Your task to perform on an android device: open sync settings in chrome Image 0: 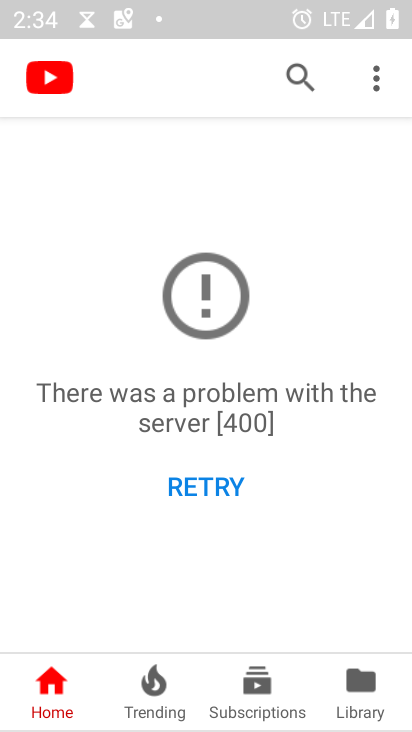
Step 0: press back button
Your task to perform on an android device: open sync settings in chrome Image 1: 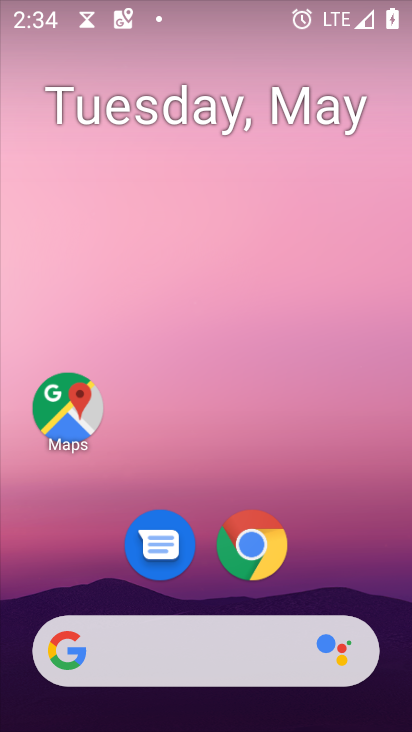
Step 1: drag from (341, 552) to (231, 10)
Your task to perform on an android device: open sync settings in chrome Image 2: 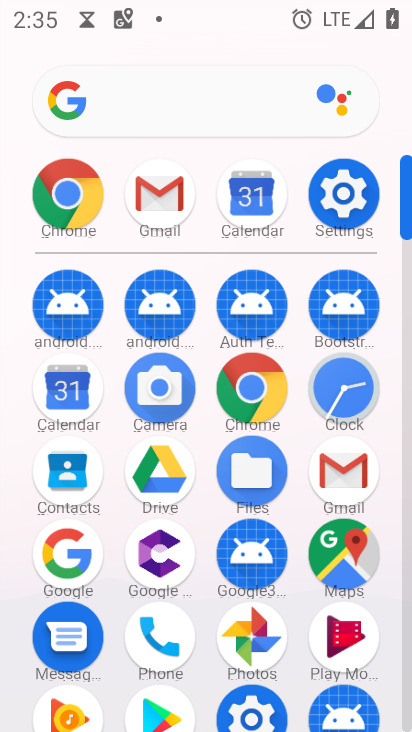
Step 2: drag from (12, 515) to (6, 239)
Your task to perform on an android device: open sync settings in chrome Image 3: 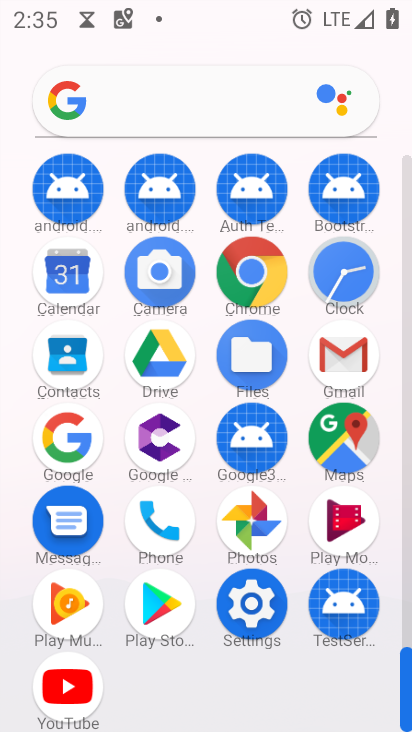
Step 3: click (246, 268)
Your task to perform on an android device: open sync settings in chrome Image 4: 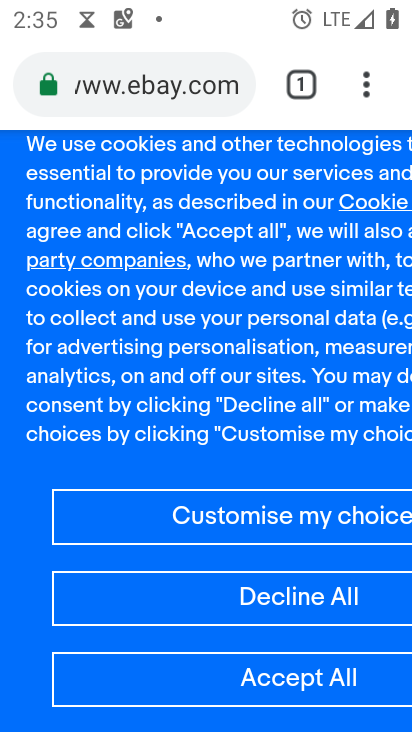
Step 4: drag from (363, 80) to (126, 585)
Your task to perform on an android device: open sync settings in chrome Image 5: 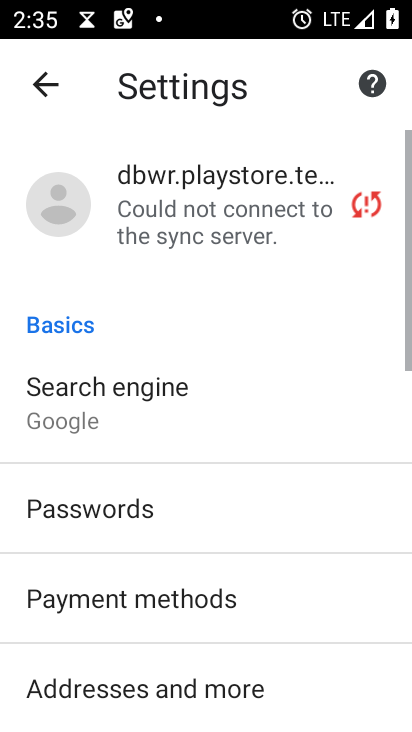
Step 5: click (191, 211)
Your task to perform on an android device: open sync settings in chrome Image 6: 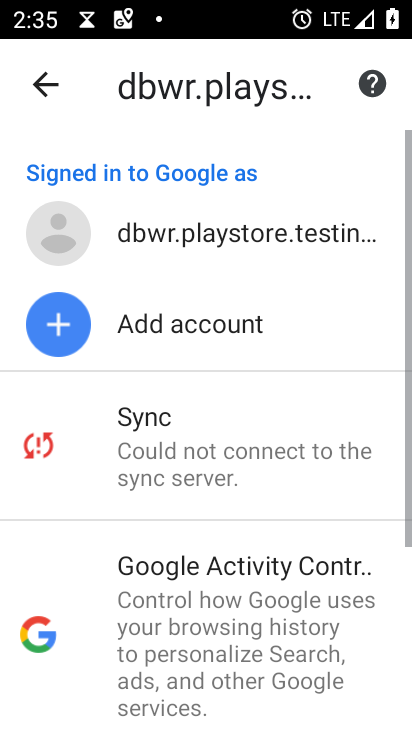
Step 6: click (185, 415)
Your task to perform on an android device: open sync settings in chrome Image 7: 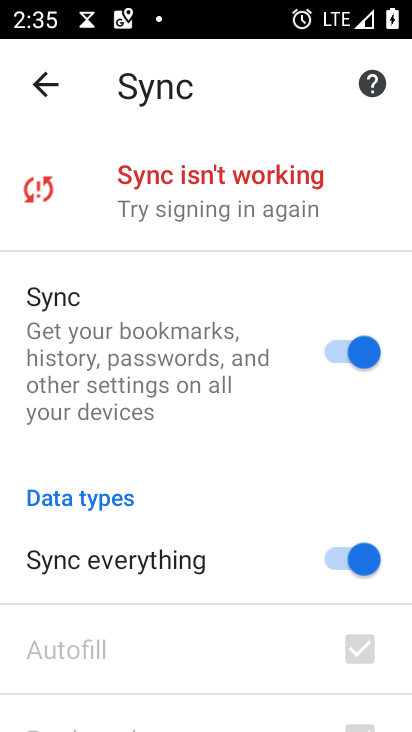
Step 7: task complete